Your task to perform on an android device: Open display settings Image 0: 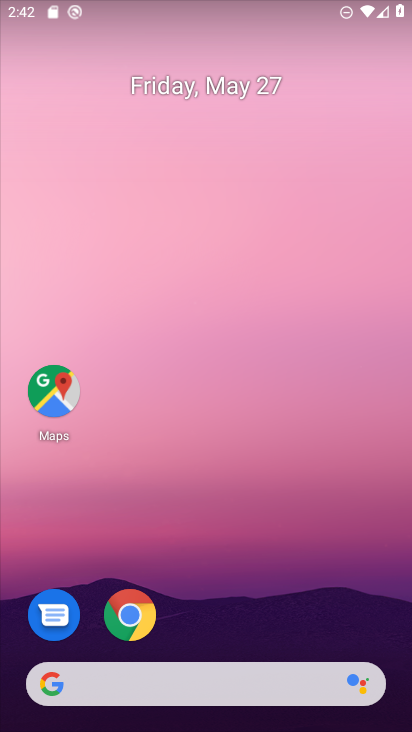
Step 0: drag from (326, 571) to (197, 4)
Your task to perform on an android device: Open display settings Image 1: 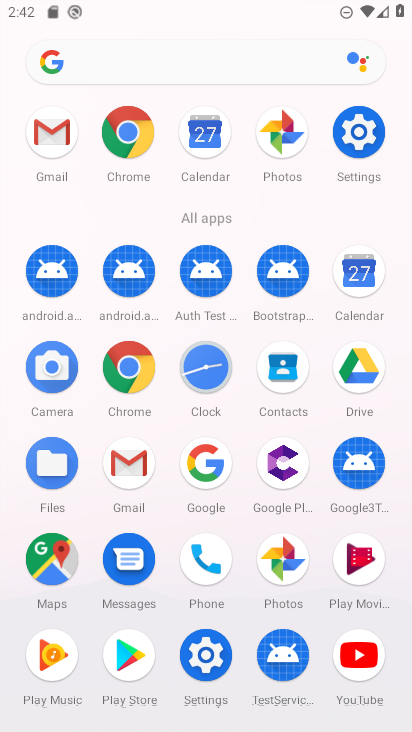
Step 1: click (361, 131)
Your task to perform on an android device: Open display settings Image 2: 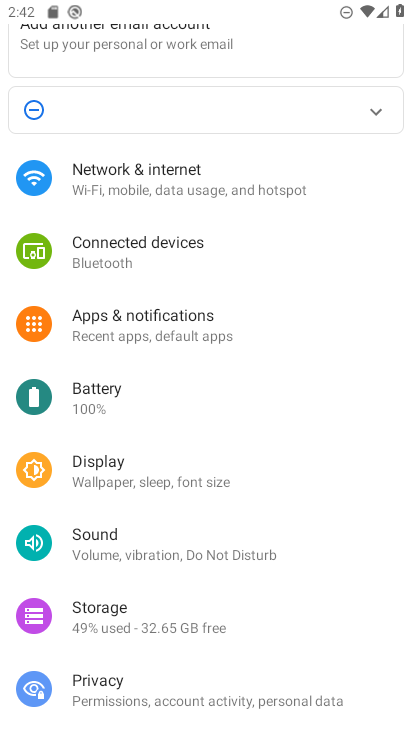
Step 2: click (166, 475)
Your task to perform on an android device: Open display settings Image 3: 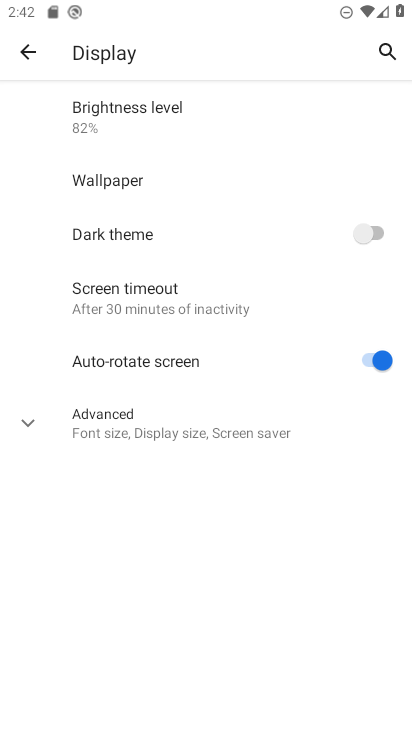
Step 3: task complete